Your task to perform on an android device: allow notifications from all sites in the chrome app Image 0: 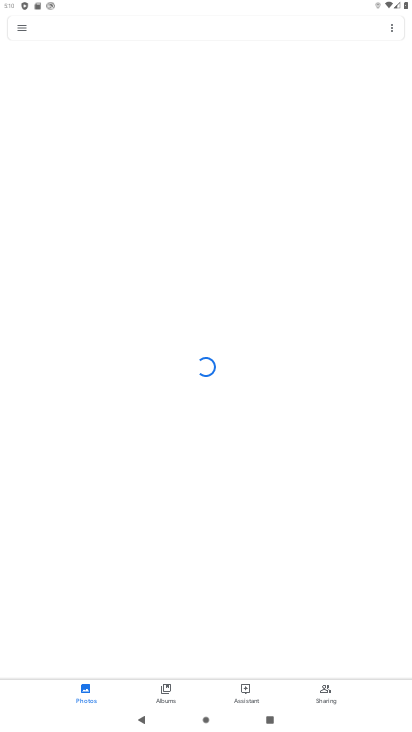
Step 0: press home button
Your task to perform on an android device: allow notifications from all sites in the chrome app Image 1: 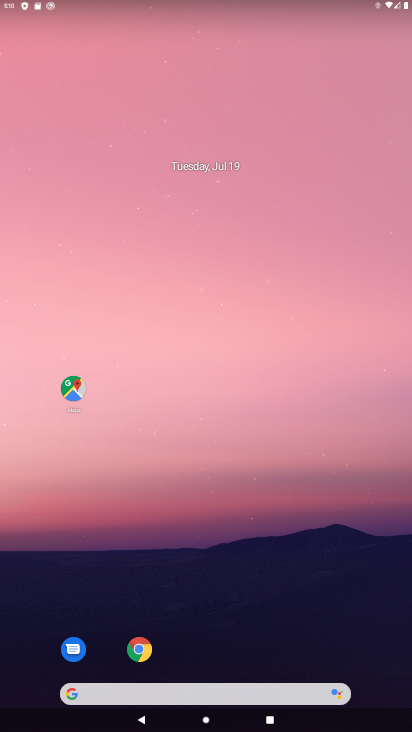
Step 1: drag from (333, 652) to (273, 72)
Your task to perform on an android device: allow notifications from all sites in the chrome app Image 2: 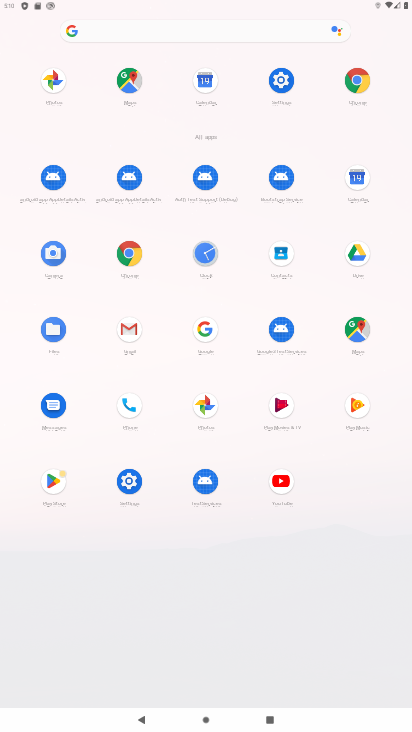
Step 2: click (358, 77)
Your task to perform on an android device: allow notifications from all sites in the chrome app Image 3: 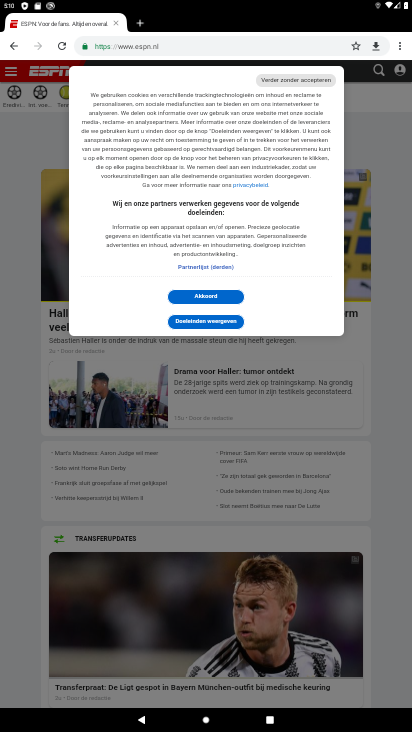
Step 3: drag from (400, 44) to (301, 342)
Your task to perform on an android device: allow notifications from all sites in the chrome app Image 4: 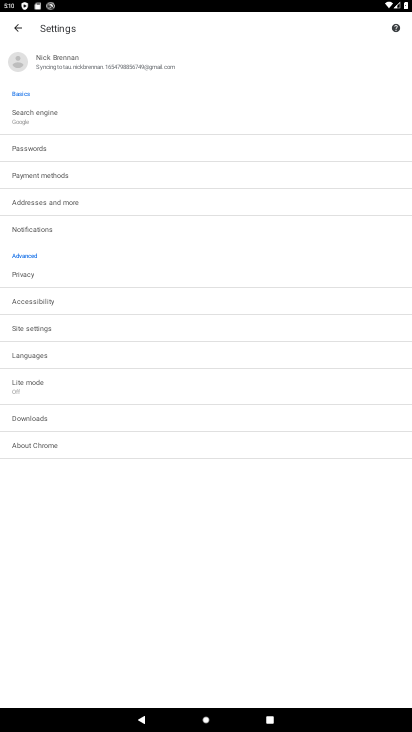
Step 4: click (38, 222)
Your task to perform on an android device: allow notifications from all sites in the chrome app Image 5: 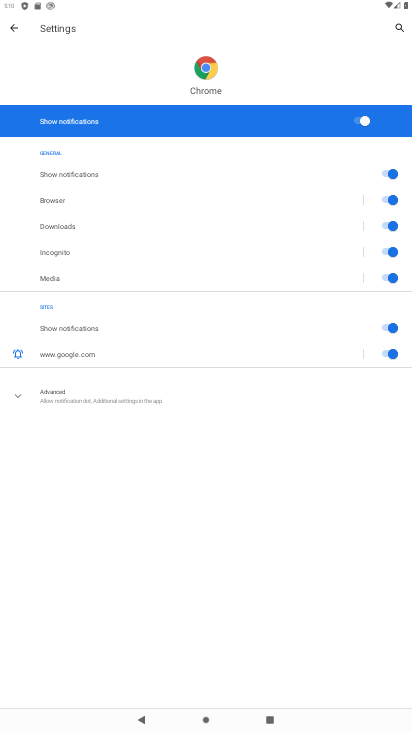
Step 5: task complete